Your task to perform on an android device: Open settings Image 0: 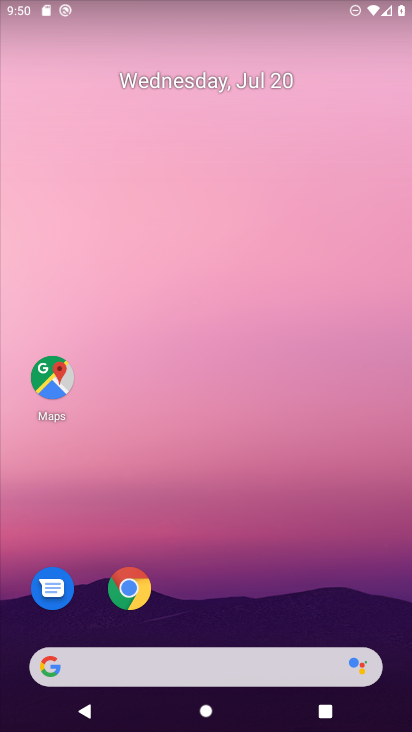
Step 0: drag from (209, 625) to (209, 79)
Your task to perform on an android device: Open settings Image 1: 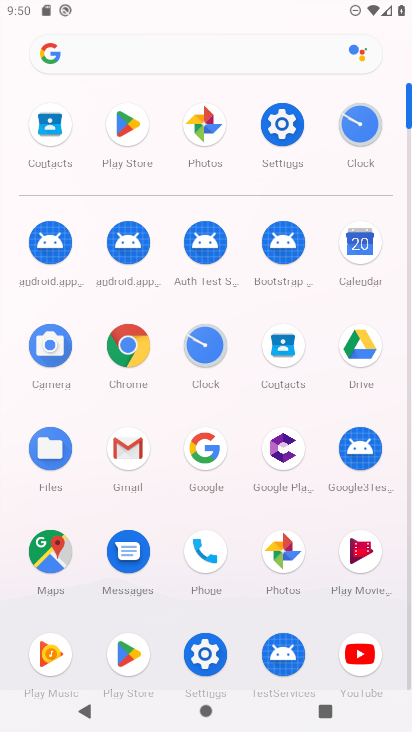
Step 1: click (270, 95)
Your task to perform on an android device: Open settings Image 2: 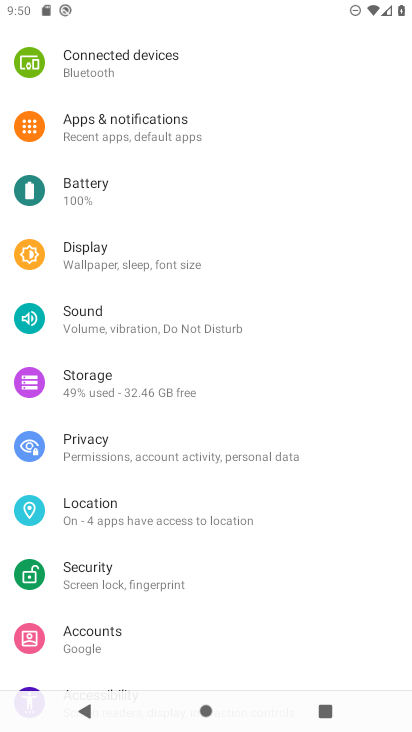
Step 2: task complete